Your task to perform on an android device: Go to Reddit.com Image 0: 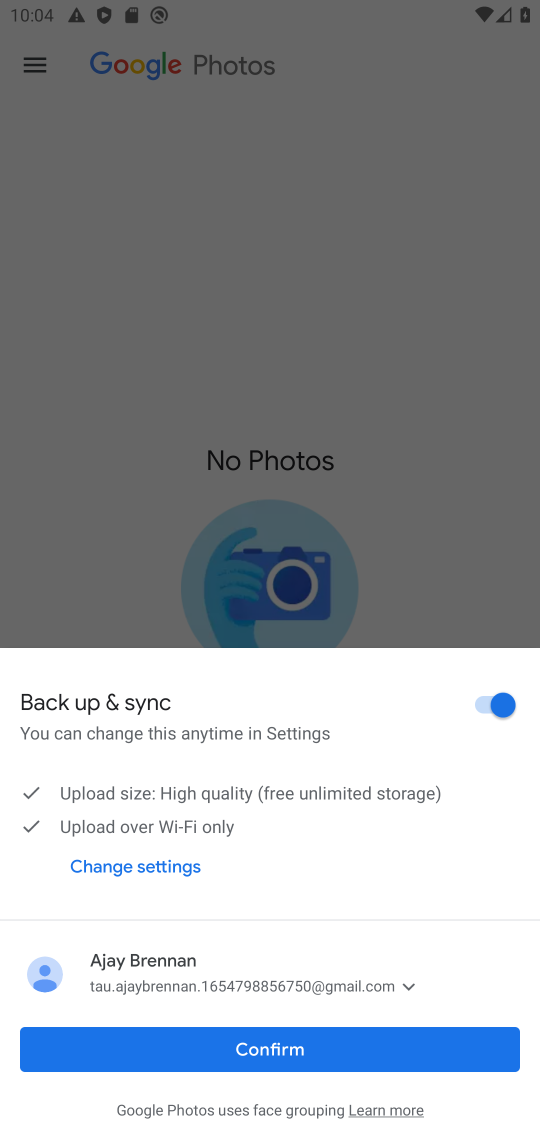
Step 0: press home button
Your task to perform on an android device: Go to Reddit.com Image 1: 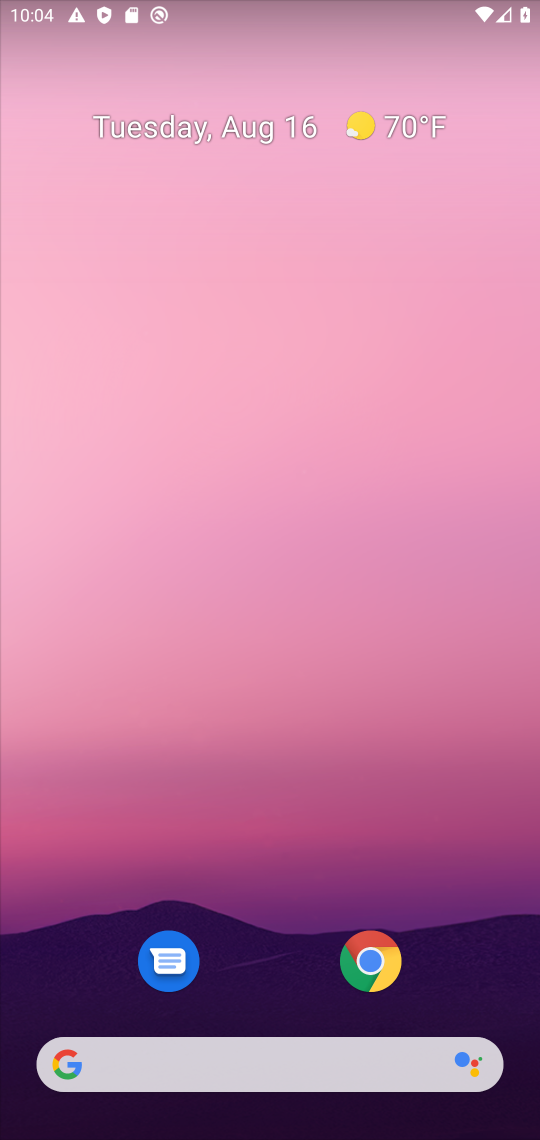
Step 1: click (276, 1077)
Your task to perform on an android device: Go to Reddit.com Image 2: 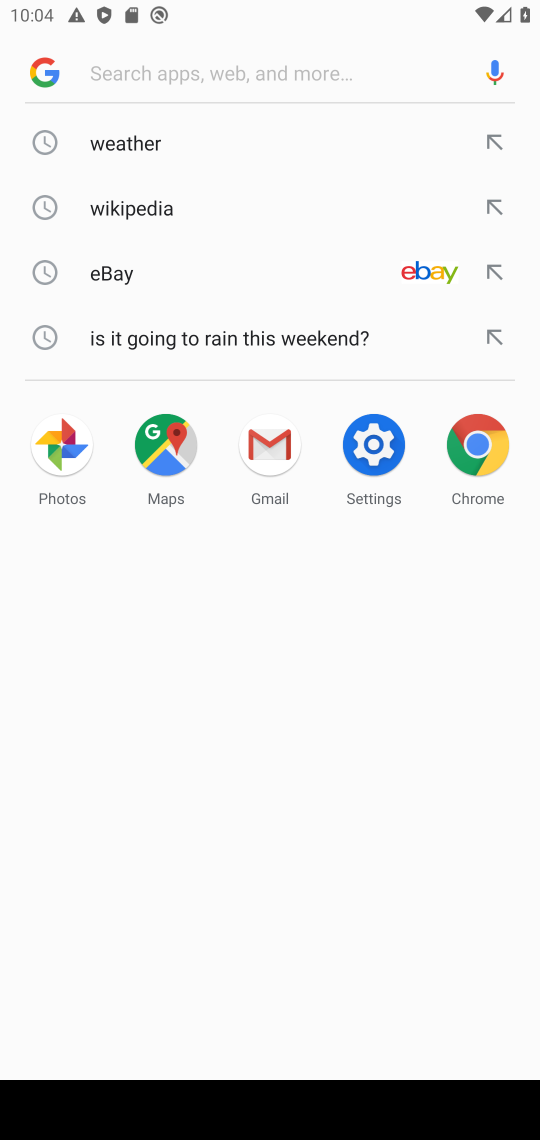
Step 2: type "Reddit.com"
Your task to perform on an android device: Go to Reddit.com Image 3: 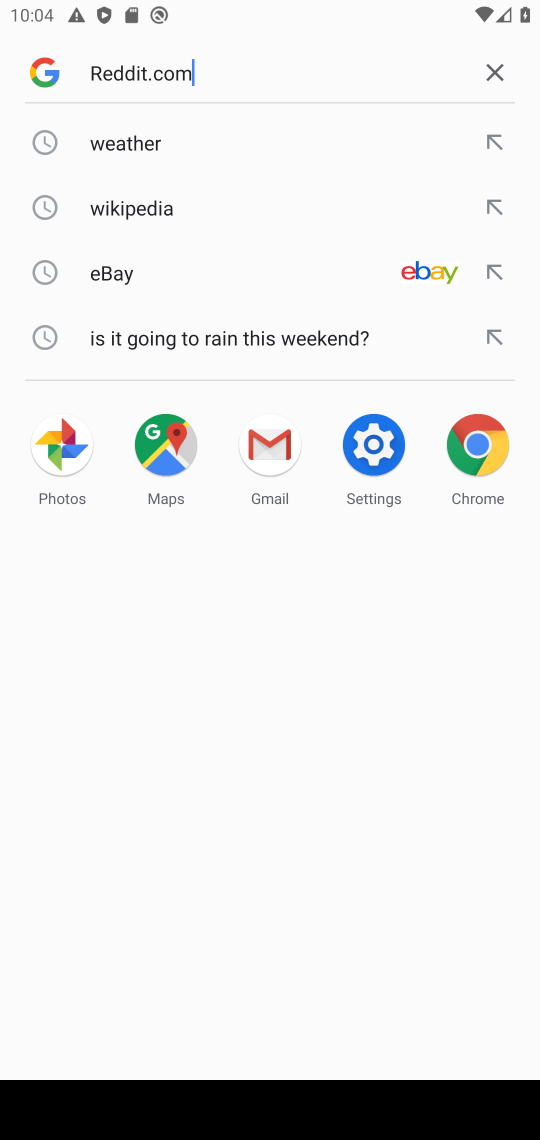
Step 3: press enter
Your task to perform on an android device: Go to Reddit.com Image 4: 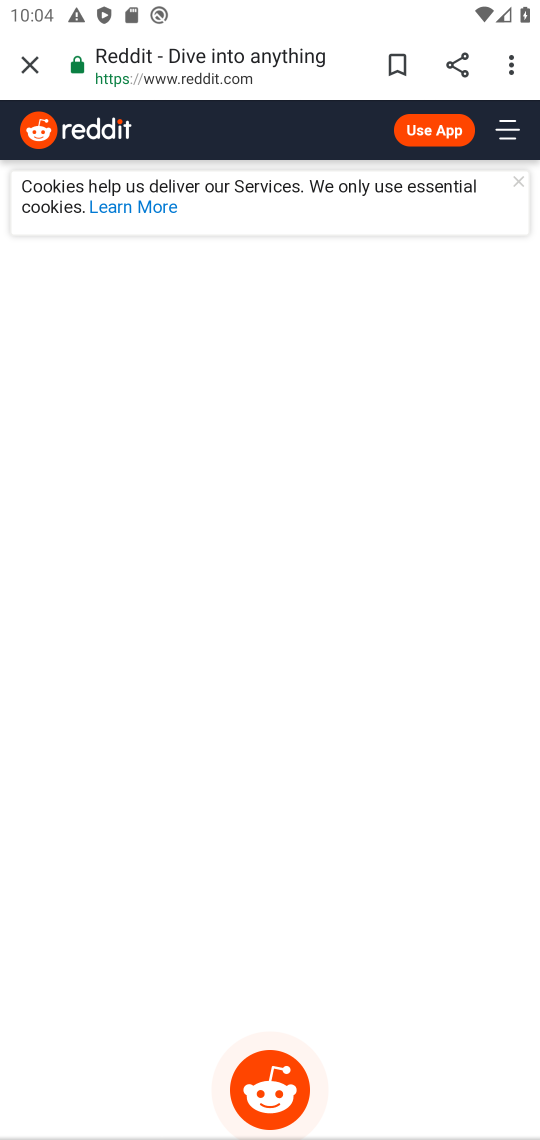
Step 4: task complete